Your task to perform on an android device: allow notifications from all sites in the chrome app Image 0: 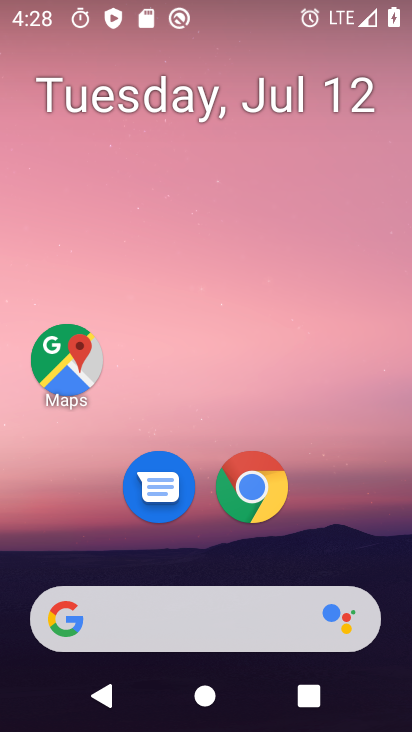
Step 0: drag from (292, 619) to (374, 13)
Your task to perform on an android device: allow notifications from all sites in the chrome app Image 1: 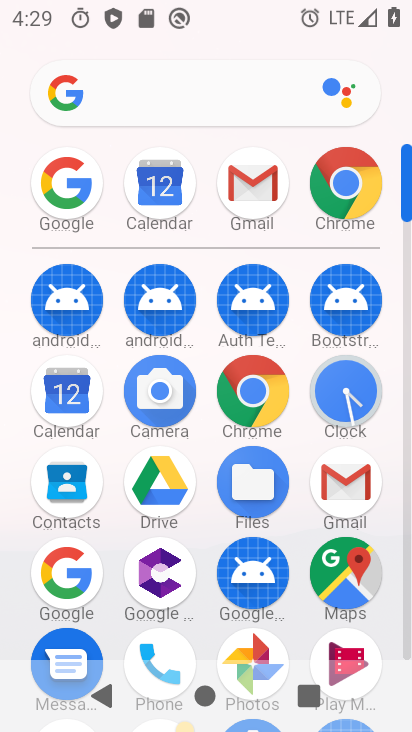
Step 1: click (233, 389)
Your task to perform on an android device: allow notifications from all sites in the chrome app Image 2: 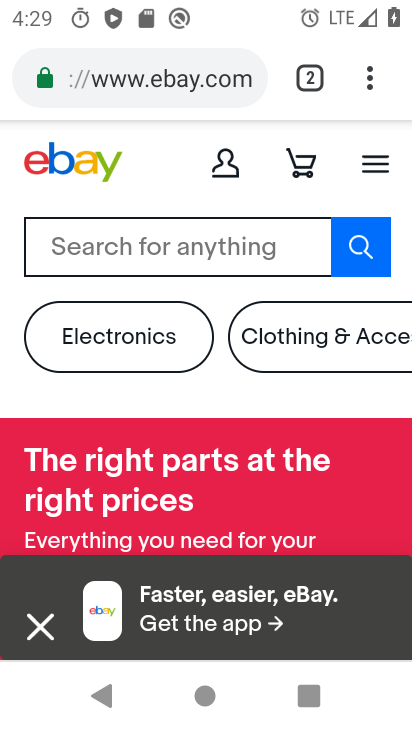
Step 2: click (367, 82)
Your task to perform on an android device: allow notifications from all sites in the chrome app Image 3: 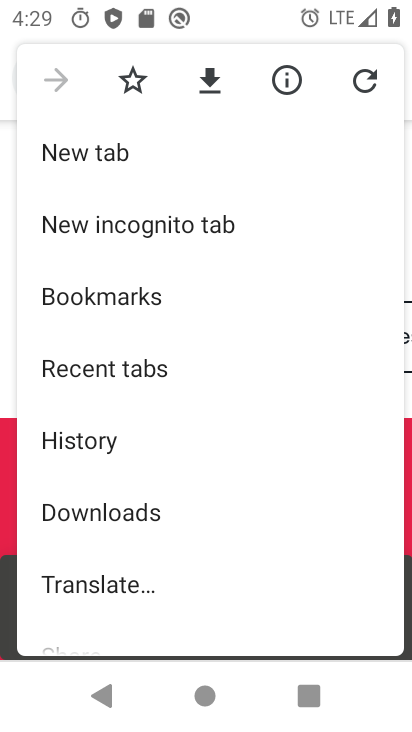
Step 3: drag from (194, 547) to (190, 434)
Your task to perform on an android device: allow notifications from all sites in the chrome app Image 4: 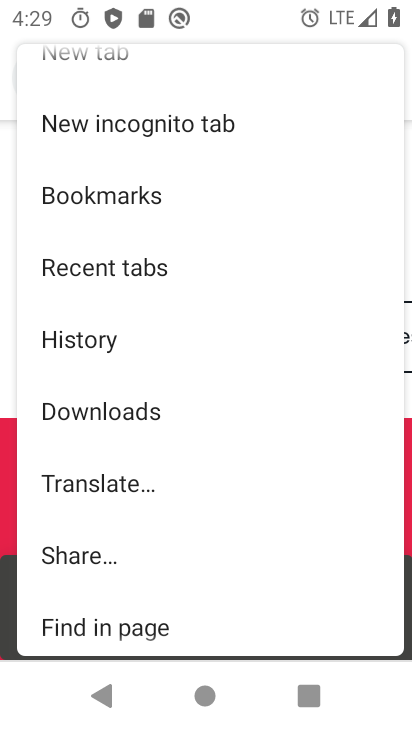
Step 4: drag from (173, 581) to (168, 289)
Your task to perform on an android device: allow notifications from all sites in the chrome app Image 5: 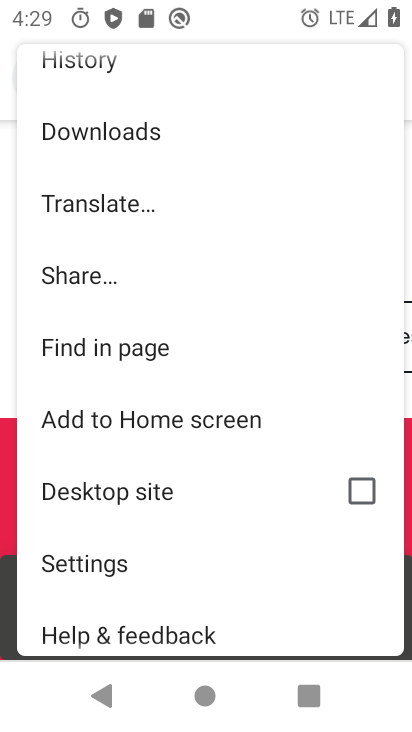
Step 5: click (121, 569)
Your task to perform on an android device: allow notifications from all sites in the chrome app Image 6: 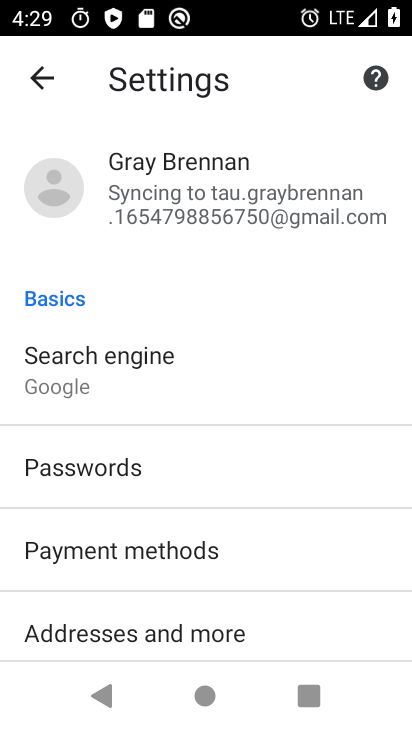
Step 6: drag from (142, 616) to (106, 153)
Your task to perform on an android device: allow notifications from all sites in the chrome app Image 7: 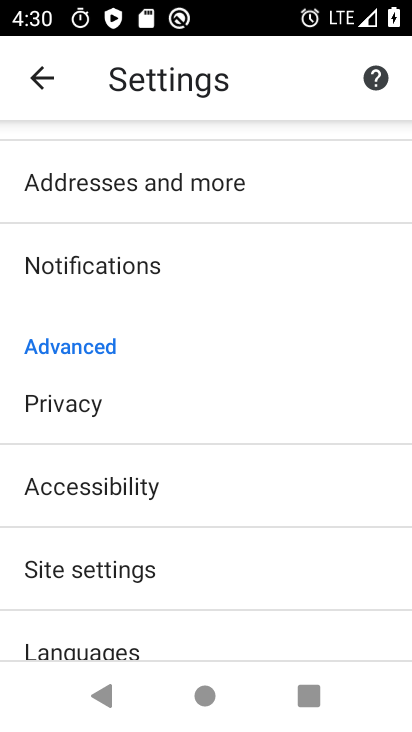
Step 7: click (80, 266)
Your task to perform on an android device: allow notifications from all sites in the chrome app Image 8: 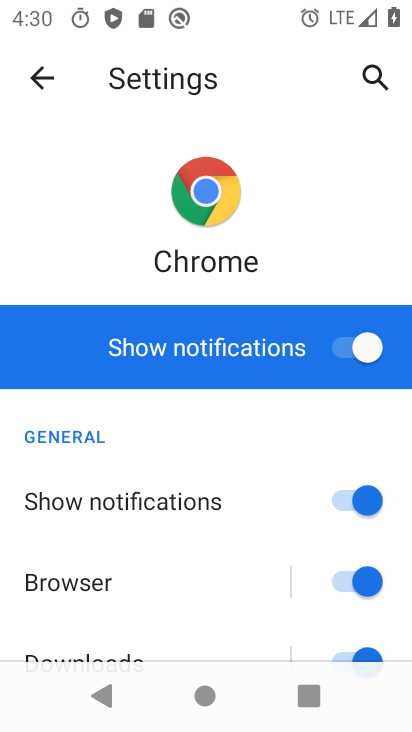
Step 8: task complete